Your task to perform on an android device: What's the weather? Image 0: 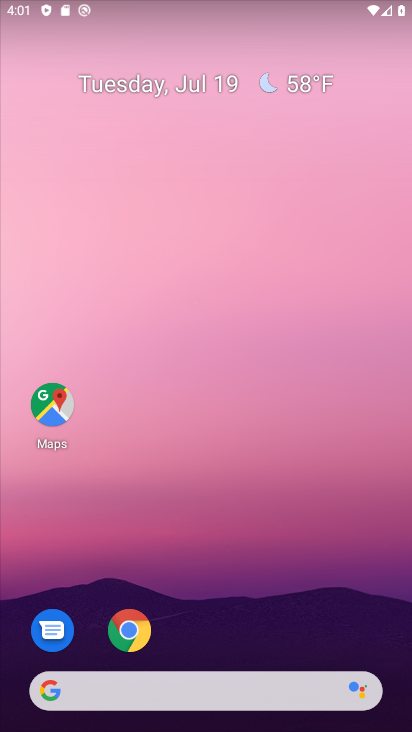
Step 0: click (80, 693)
Your task to perform on an android device: What's the weather? Image 1: 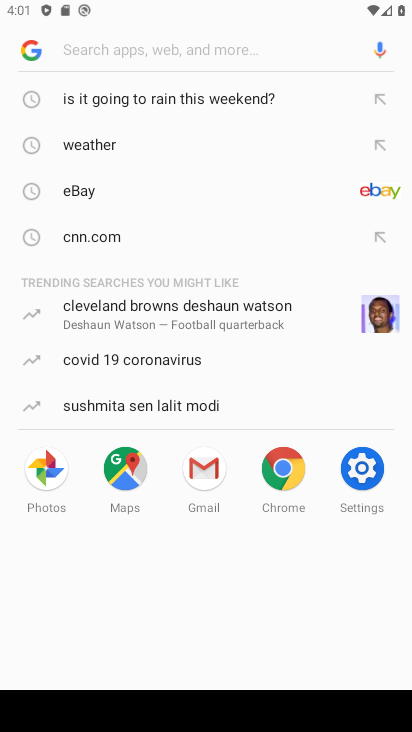
Step 1: type "What's the weather?"
Your task to perform on an android device: What's the weather? Image 2: 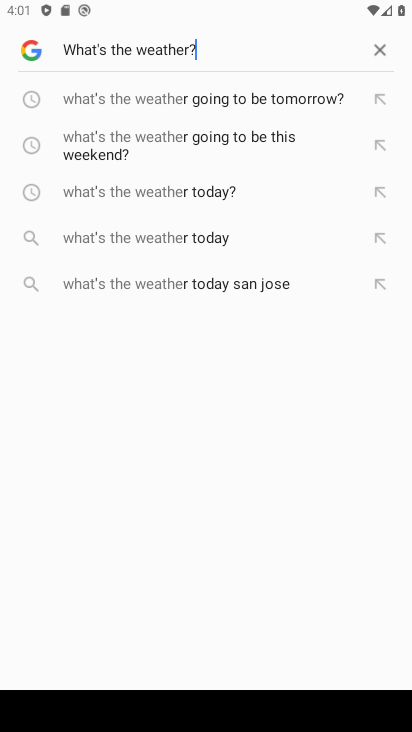
Step 2: type ""
Your task to perform on an android device: What's the weather? Image 3: 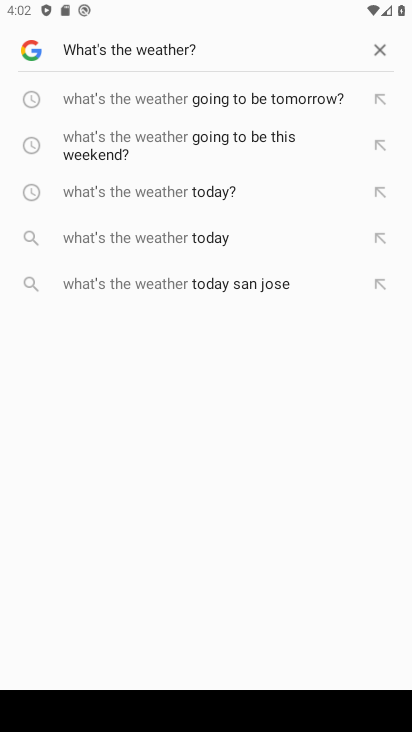
Step 3: type ""
Your task to perform on an android device: What's the weather? Image 4: 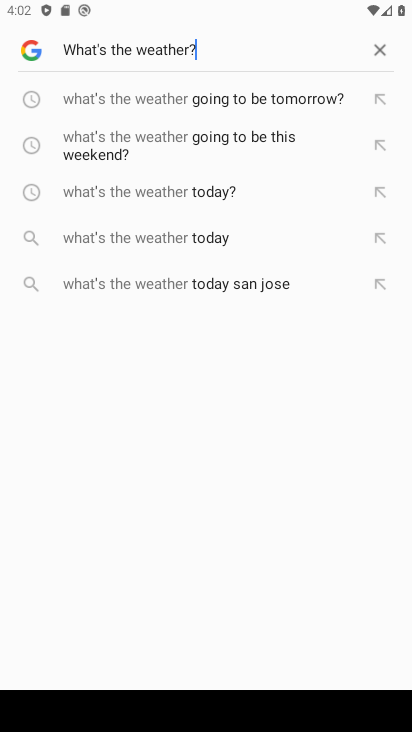
Step 4: type ""
Your task to perform on an android device: What's the weather? Image 5: 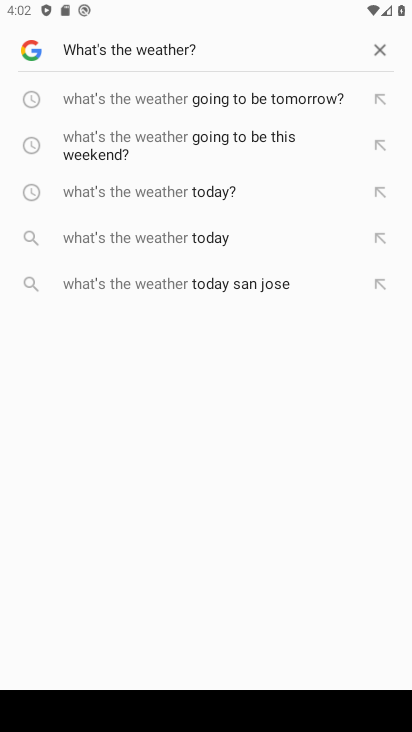
Step 5: type ""
Your task to perform on an android device: What's the weather? Image 6: 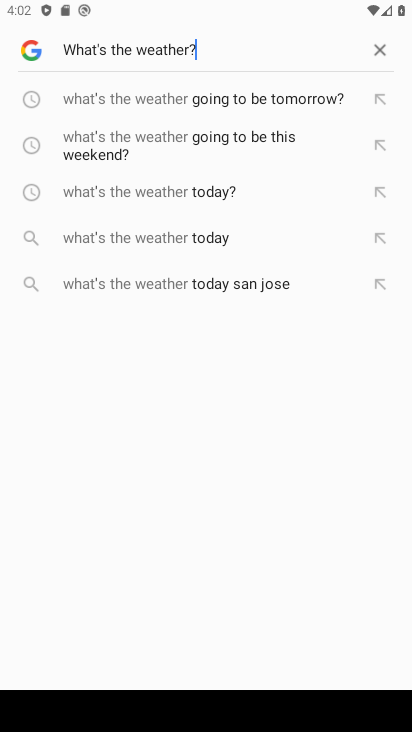
Step 6: task complete